Your task to perform on an android device: open wifi settings Image 0: 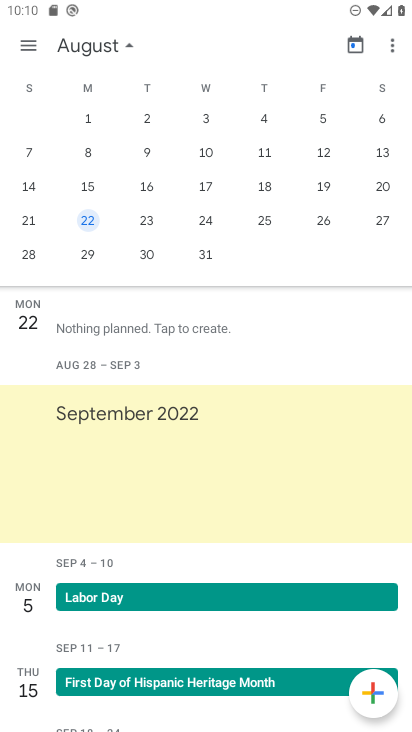
Step 0: press home button
Your task to perform on an android device: open wifi settings Image 1: 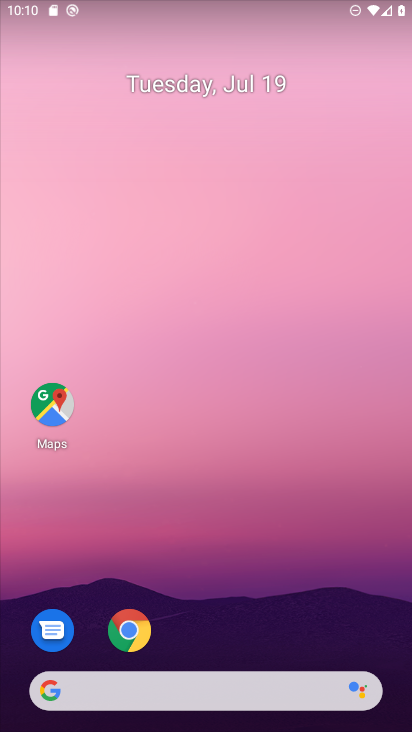
Step 1: drag from (11, 689) to (238, 133)
Your task to perform on an android device: open wifi settings Image 2: 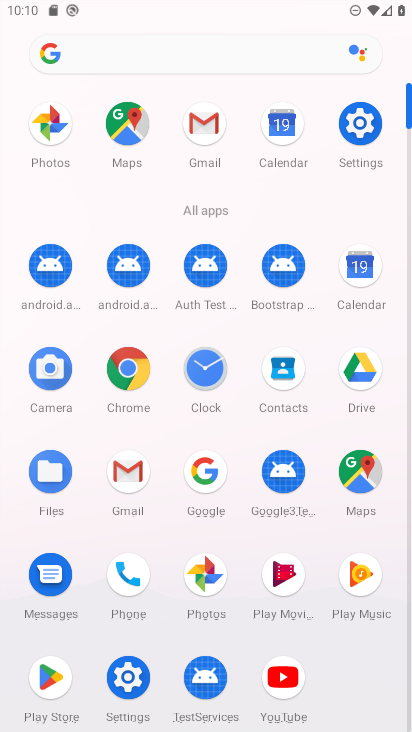
Step 2: click (152, 685)
Your task to perform on an android device: open wifi settings Image 3: 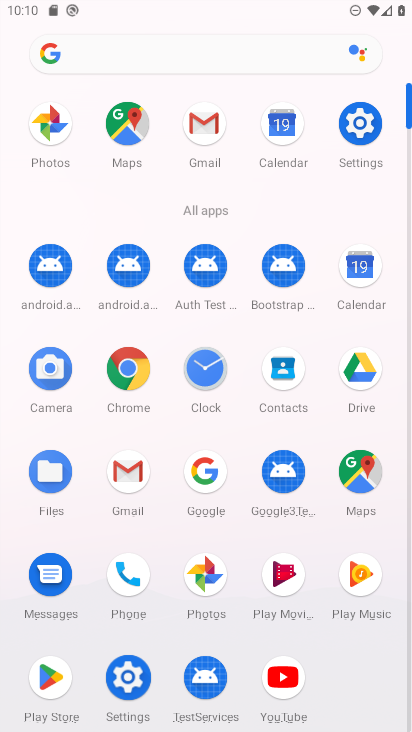
Step 3: click (115, 679)
Your task to perform on an android device: open wifi settings Image 4: 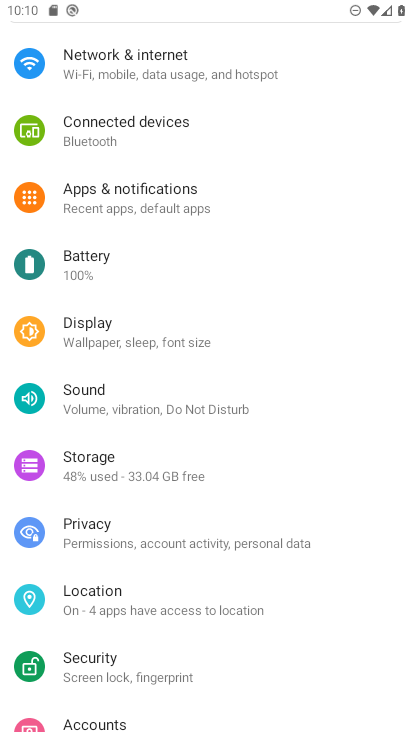
Step 4: click (150, 48)
Your task to perform on an android device: open wifi settings Image 5: 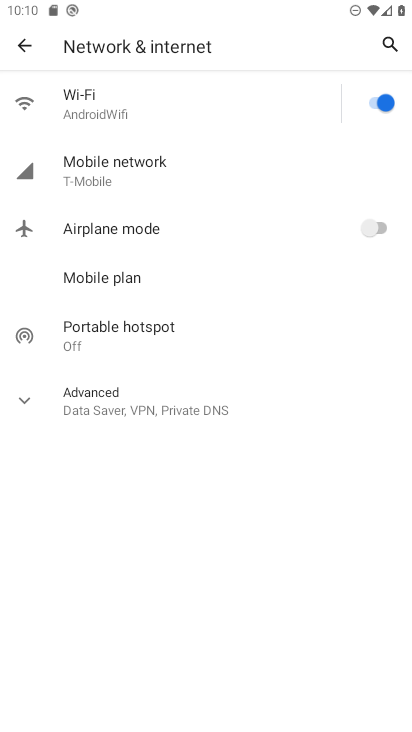
Step 5: task complete